Your task to perform on an android device: toggle data saver in the chrome app Image 0: 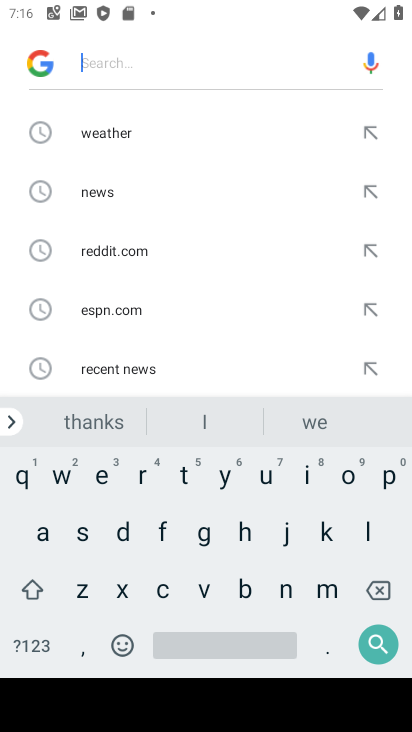
Step 0: press home button
Your task to perform on an android device: toggle data saver in the chrome app Image 1: 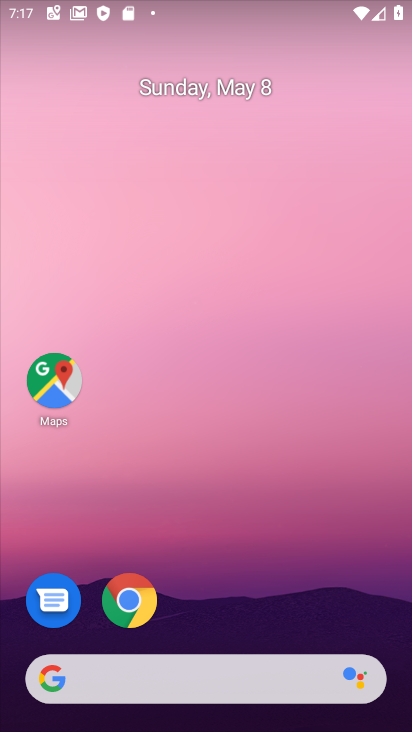
Step 1: drag from (286, 726) to (157, 336)
Your task to perform on an android device: toggle data saver in the chrome app Image 2: 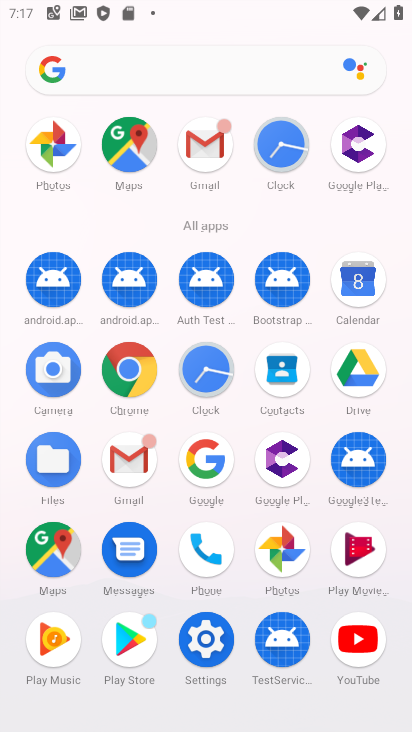
Step 2: click (120, 376)
Your task to perform on an android device: toggle data saver in the chrome app Image 3: 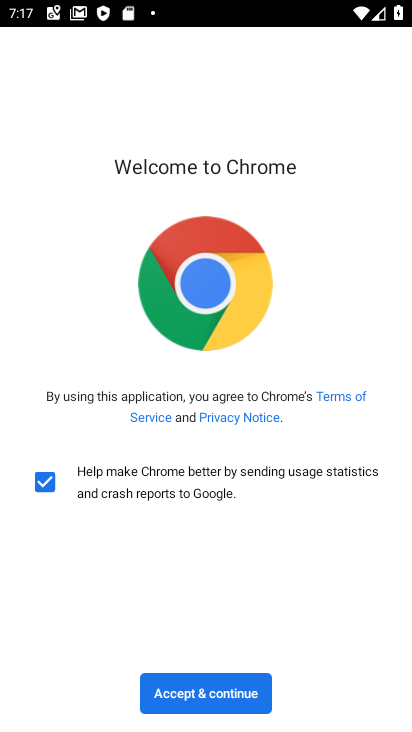
Step 3: click (198, 705)
Your task to perform on an android device: toggle data saver in the chrome app Image 4: 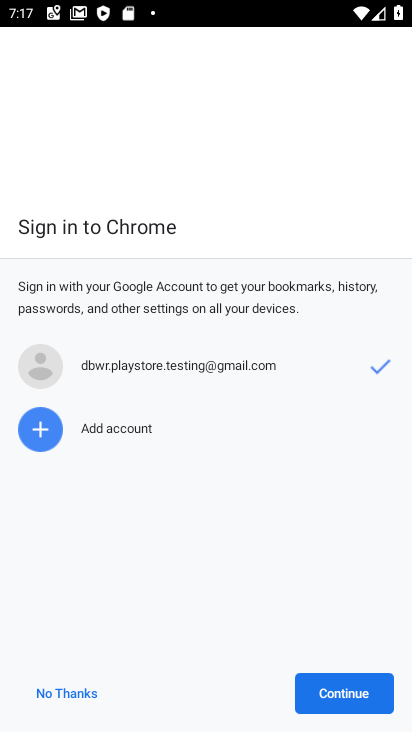
Step 4: click (339, 699)
Your task to perform on an android device: toggle data saver in the chrome app Image 5: 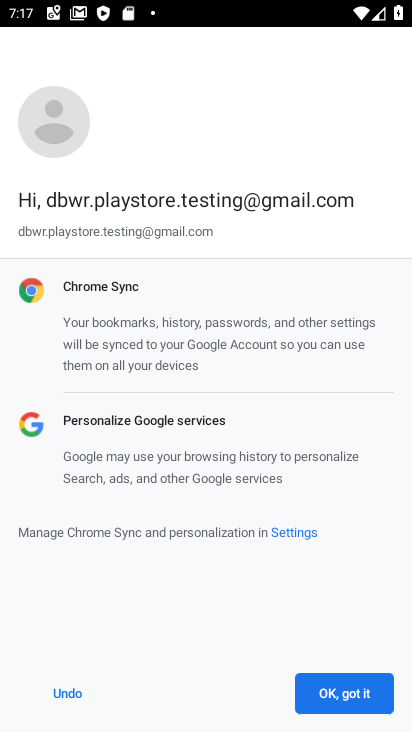
Step 5: click (315, 698)
Your task to perform on an android device: toggle data saver in the chrome app Image 6: 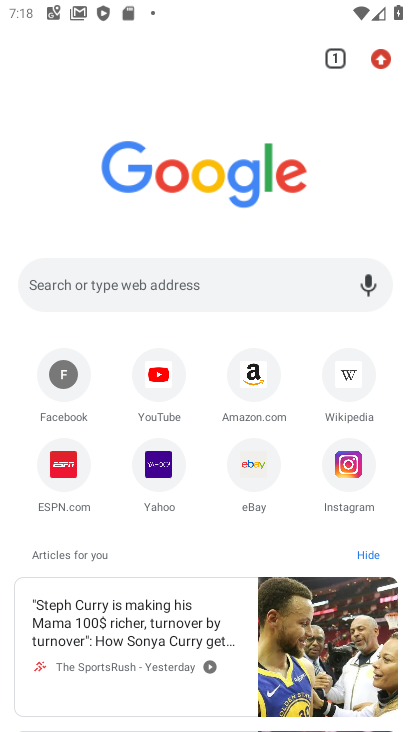
Step 6: click (390, 48)
Your task to perform on an android device: toggle data saver in the chrome app Image 7: 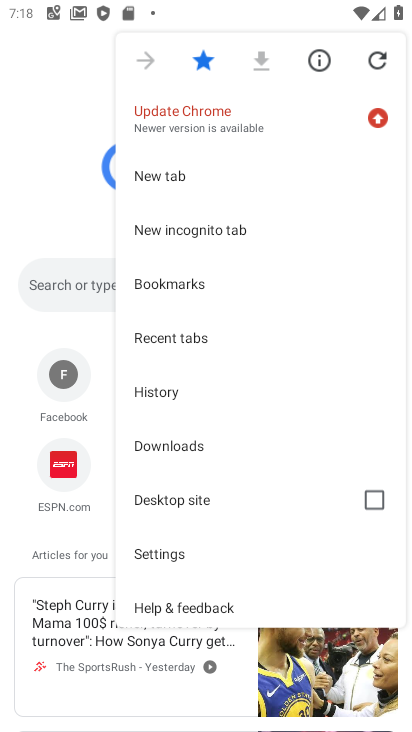
Step 7: click (164, 549)
Your task to perform on an android device: toggle data saver in the chrome app Image 8: 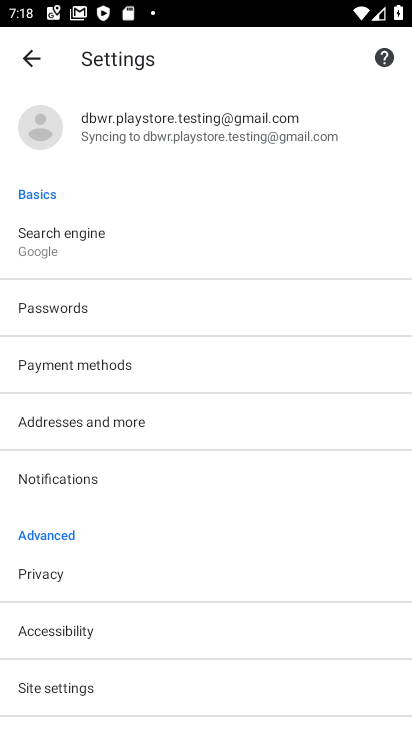
Step 8: drag from (164, 549) to (193, 370)
Your task to perform on an android device: toggle data saver in the chrome app Image 9: 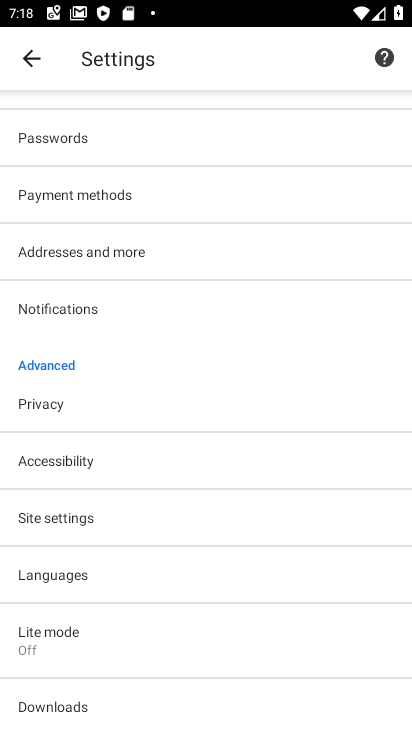
Step 9: click (62, 637)
Your task to perform on an android device: toggle data saver in the chrome app Image 10: 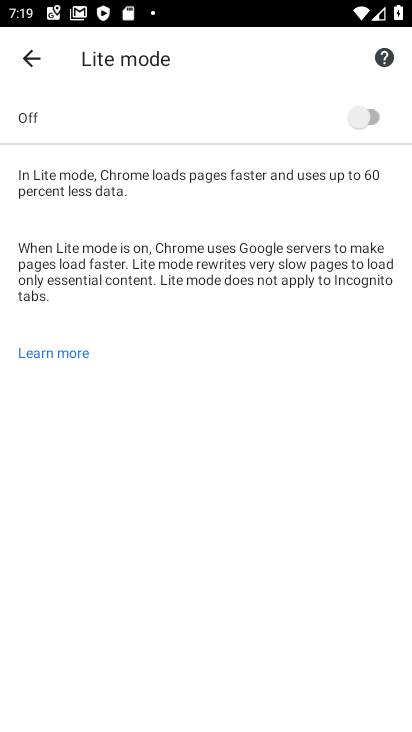
Step 10: task complete